Your task to perform on an android device: Open Chrome and go to the settings page Image 0: 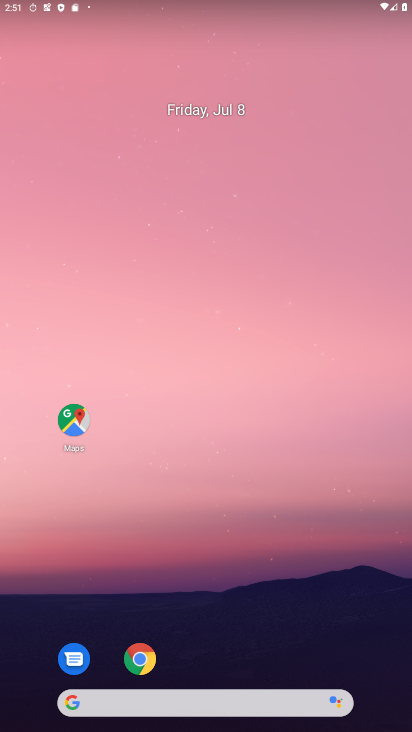
Step 0: click (139, 652)
Your task to perform on an android device: Open Chrome and go to the settings page Image 1: 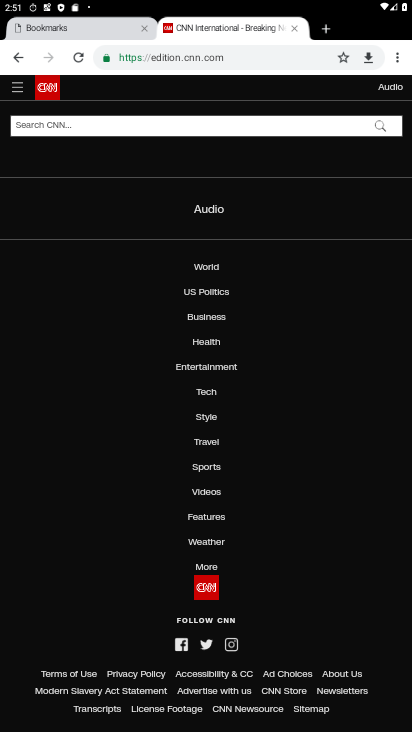
Step 1: click (399, 56)
Your task to perform on an android device: Open Chrome and go to the settings page Image 2: 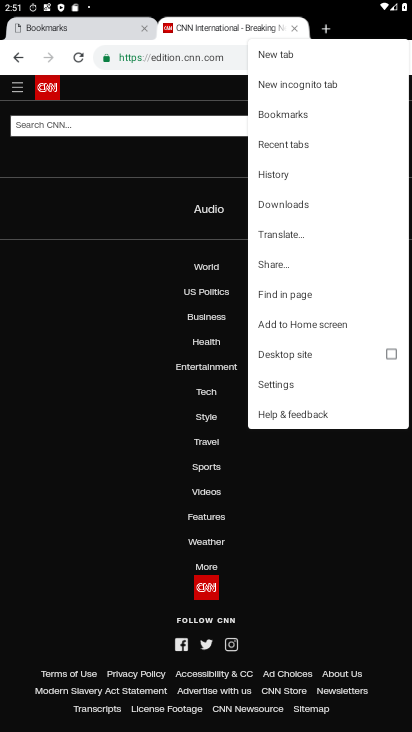
Step 2: click (308, 385)
Your task to perform on an android device: Open Chrome and go to the settings page Image 3: 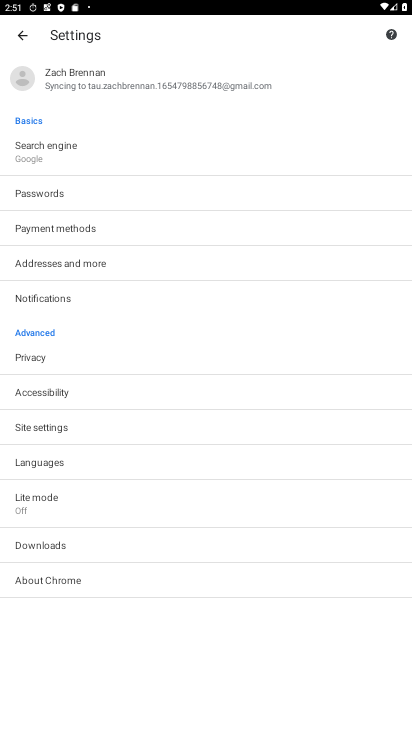
Step 3: task complete